Your task to perform on an android device: Open Chrome and go to the settings page Image 0: 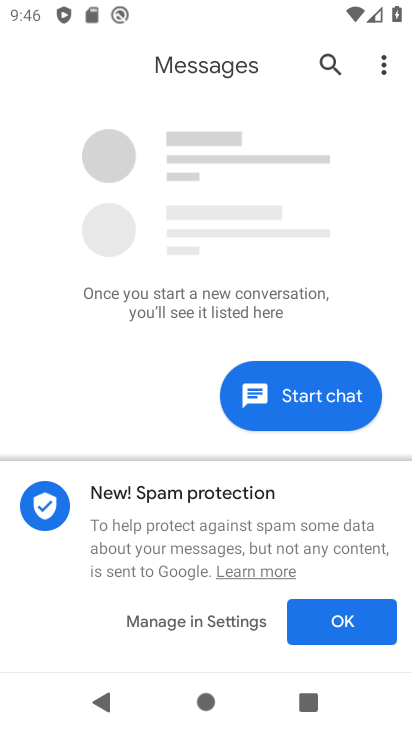
Step 0: press back button
Your task to perform on an android device: Open Chrome and go to the settings page Image 1: 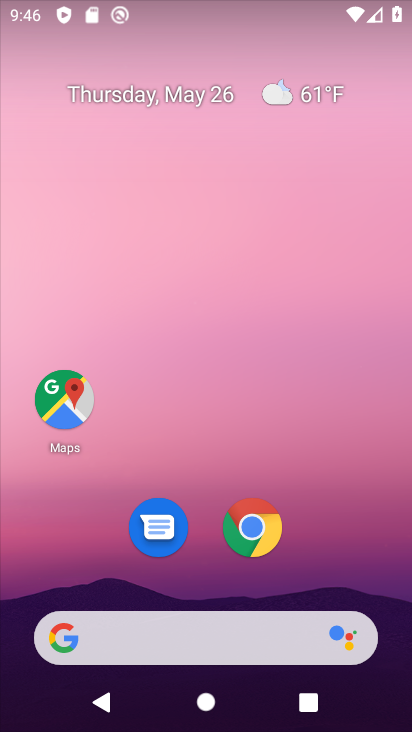
Step 1: drag from (204, 579) to (322, 84)
Your task to perform on an android device: Open Chrome and go to the settings page Image 2: 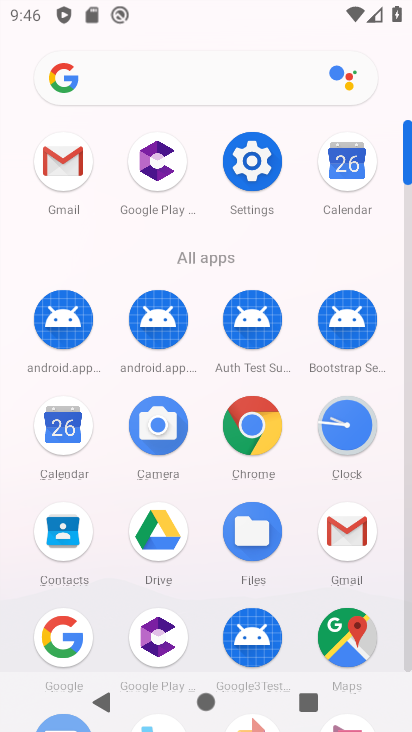
Step 2: click (250, 434)
Your task to perform on an android device: Open Chrome and go to the settings page Image 3: 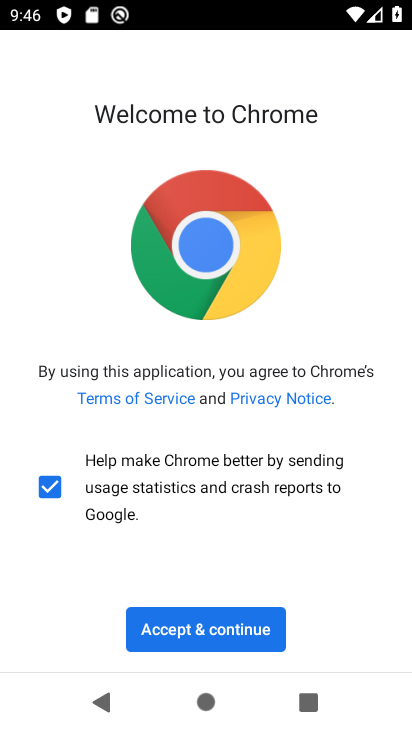
Step 3: click (182, 641)
Your task to perform on an android device: Open Chrome and go to the settings page Image 4: 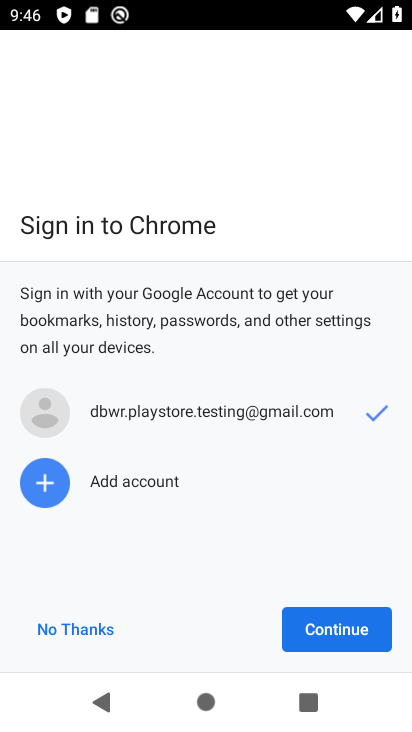
Step 4: click (311, 636)
Your task to perform on an android device: Open Chrome and go to the settings page Image 5: 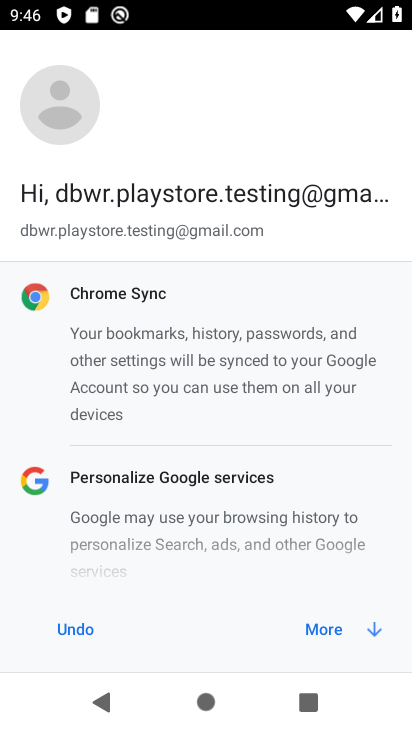
Step 5: click (321, 631)
Your task to perform on an android device: Open Chrome and go to the settings page Image 6: 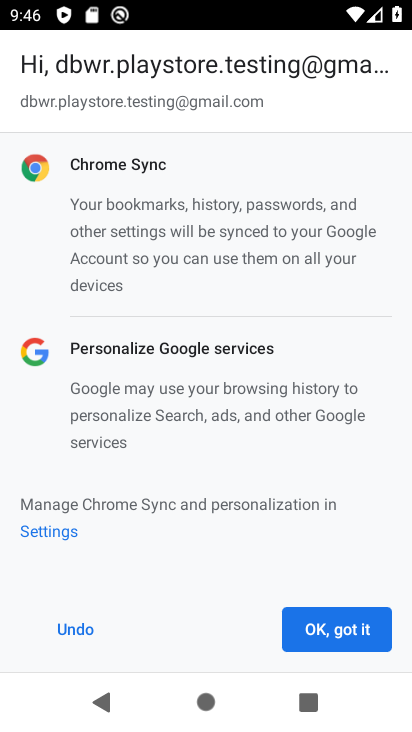
Step 6: click (323, 624)
Your task to perform on an android device: Open Chrome and go to the settings page Image 7: 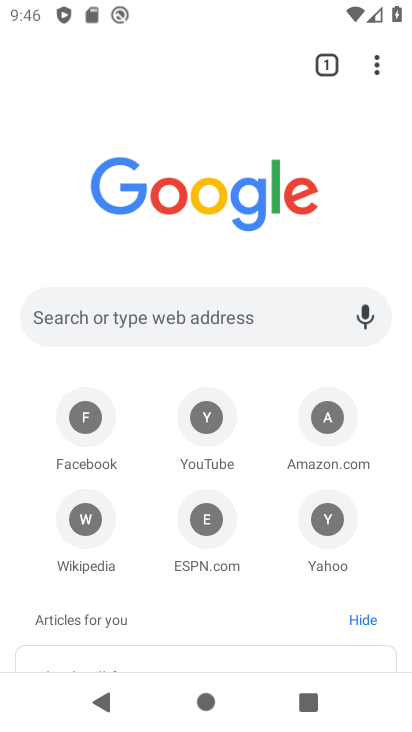
Step 7: task complete